Your task to perform on an android device: Search for sushi restaurants on Maps Image 0: 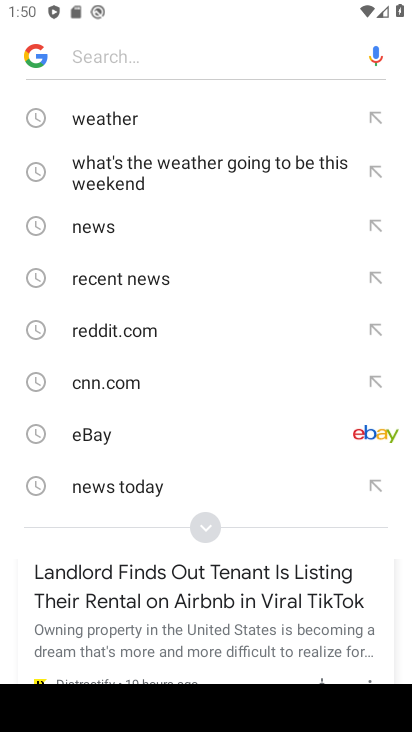
Step 0: task complete